Your task to perform on an android device: open a new tab in the chrome app Image 0: 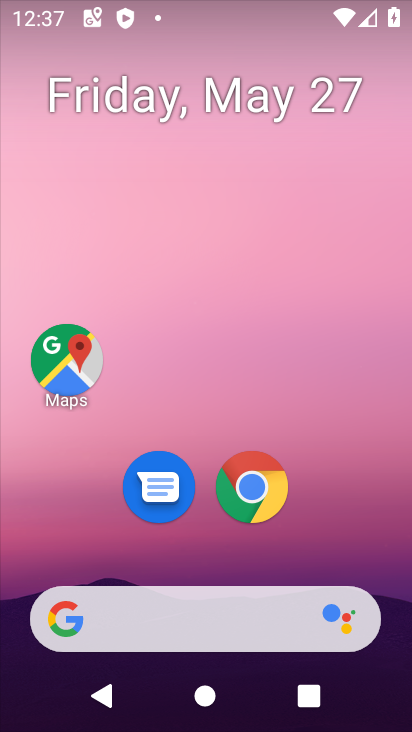
Step 0: click (262, 487)
Your task to perform on an android device: open a new tab in the chrome app Image 1: 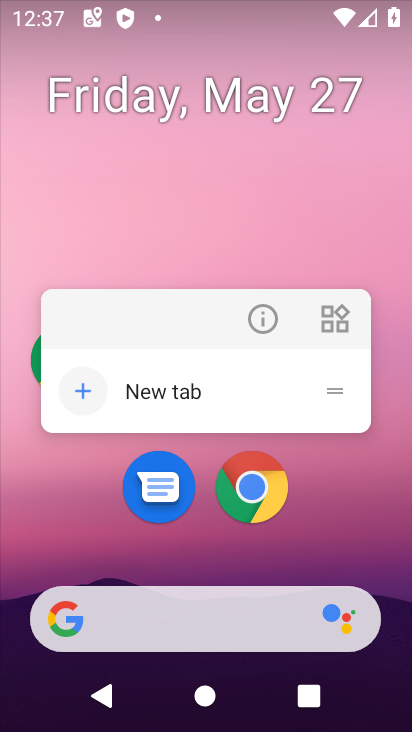
Step 1: click (248, 502)
Your task to perform on an android device: open a new tab in the chrome app Image 2: 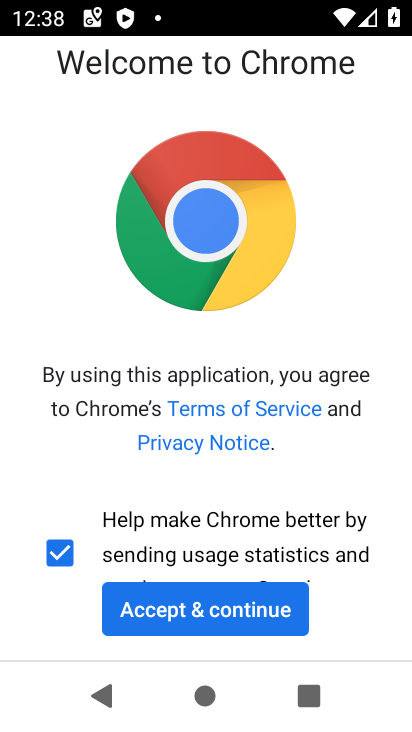
Step 2: click (151, 615)
Your task to perform on an android device: open a new tab in the chrome app Image 3: 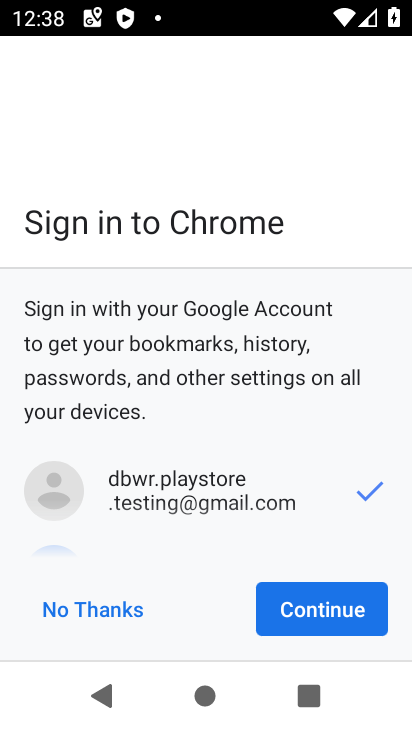
Step 3: click (342, 611)
Your task to perform on an android device: open a new tab in the chrome app Image 4: 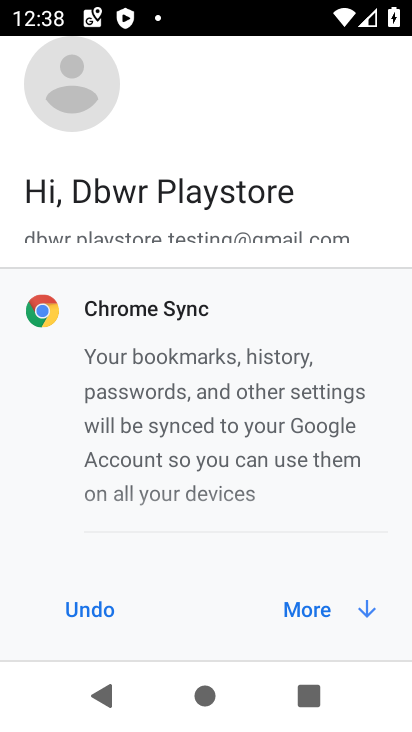
Step 4: click (340, 611)
Your task to perform on an android device: open a new tab in the chrome app Image 5: 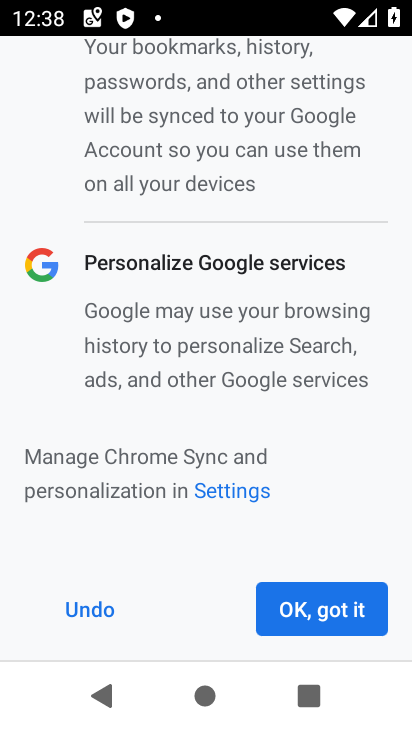
Step 5: click (338, 610)
Your task to perform on an android device: open a new tab in the chrome app Image 6: 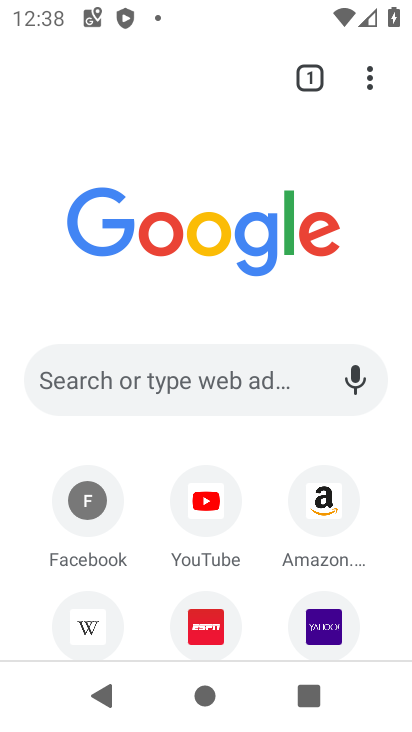
Step 6: click (317, 74)
Your task to perform on an android device: open a new tab in the chrome app Image 7: 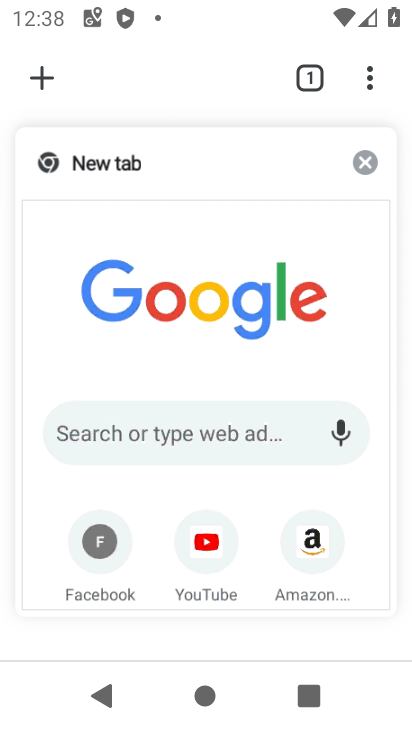
Step 7: click (32, 77)
Your task to perform on an android device: open a new tab in the chrome app Image 8: 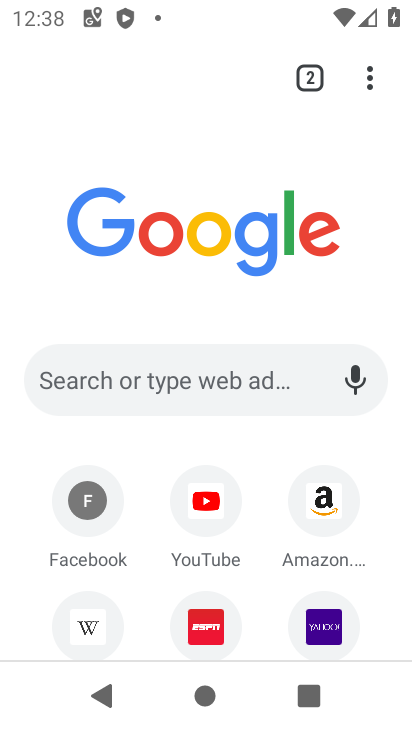
Step 8: task complete